Your task to perform on an android device: Show me popular videos on Youtube Image 0: 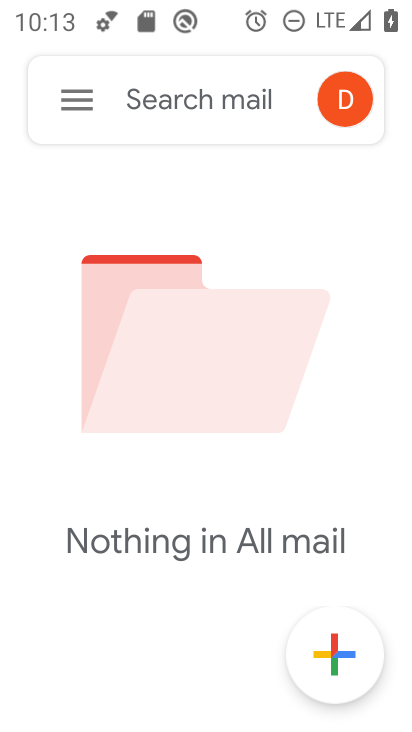
Step 0: press home button
Your task to perform on an android device: Show me popular videos on Youtube Image 1: 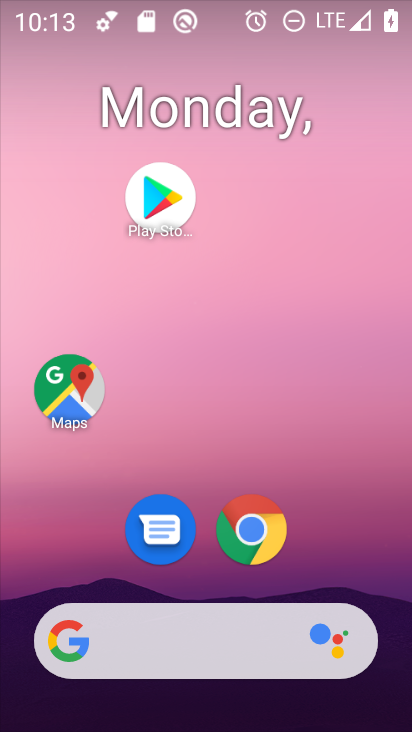
Step 1: drag from (315, 479) to (193, 98)
Your task to perform on an android device: Show me popular videos on Youtube Image 2: 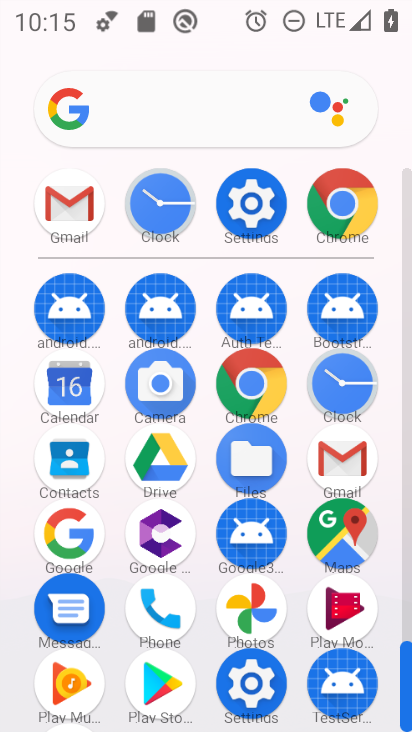
Step 2: drag from (204, 673) to (150, 451)
Your task to perform on an android device: Show me popular videos on Youtube Image 3: 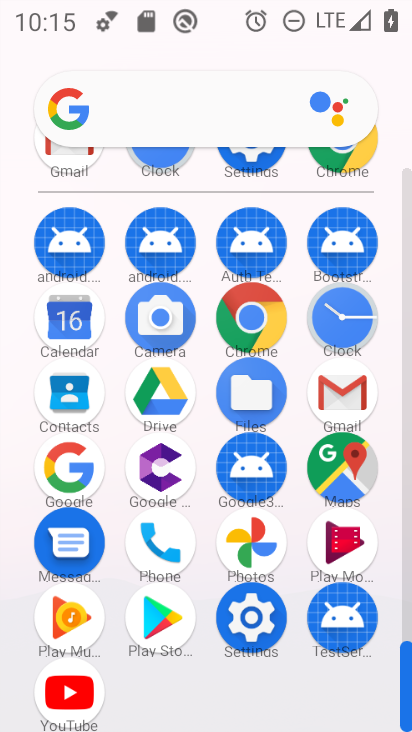
Step 3: click (73, 681)
Your task to perform on an android device: Show me popular videos on Youtube Image 4: 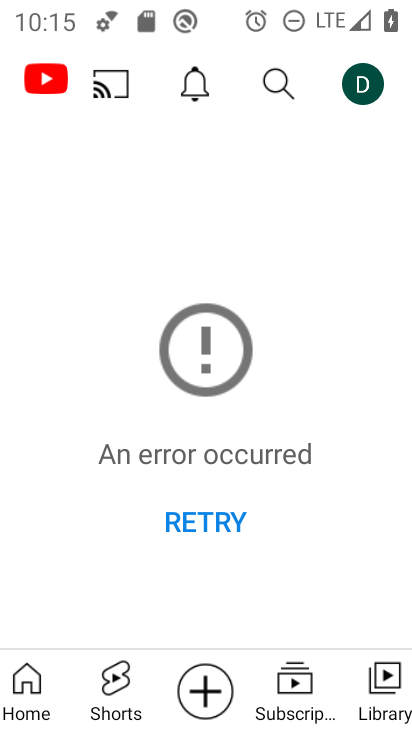
Step 4: click (118, 675)
Your task to perform on an android device: Show me popular videos on Youtube Image 5: 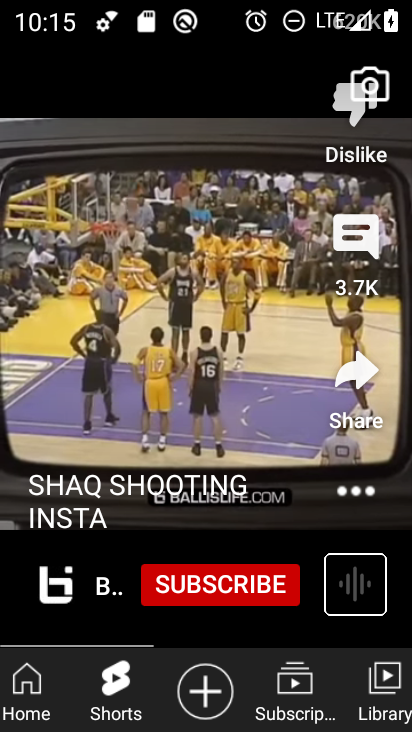
Step 5: task complete